Your task to perform on an android device: change the clock display to show seconds Image 0: 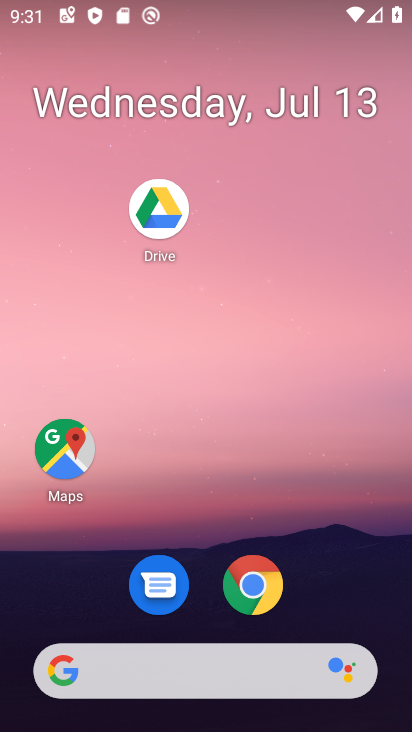
Step 0: drag from (197, 669) to (286, 133)
Your task to perform on an android device: change the clock display to show seconds Image 1: 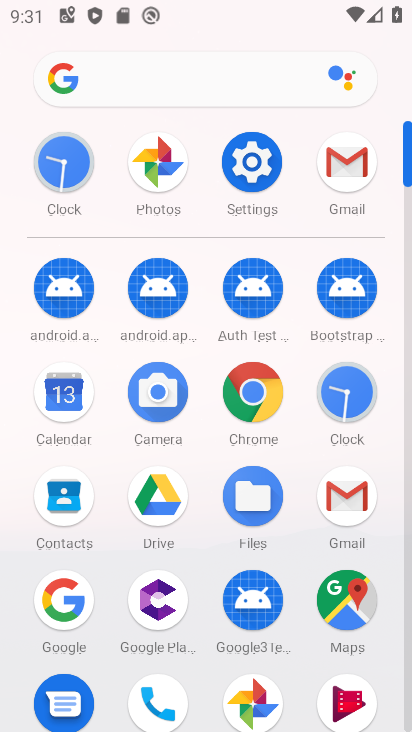
Step 1: click (358, 391)
Your task to perform on an android device: change the clock display to show seconds Image 2: 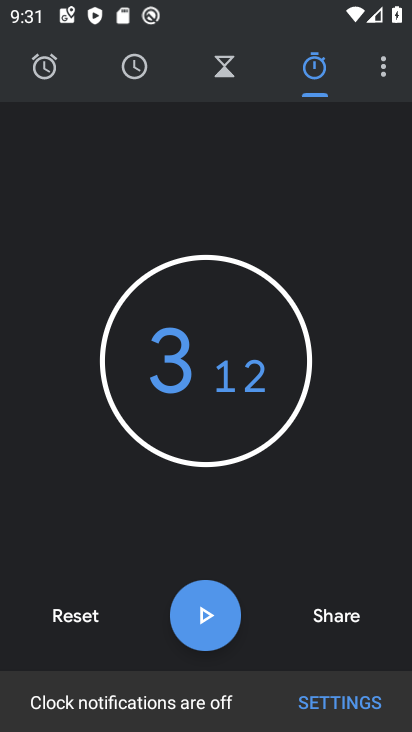
Step 2: click (384, 69)
Your task to perform on an android device: change the clock display to show seconds Image 3: 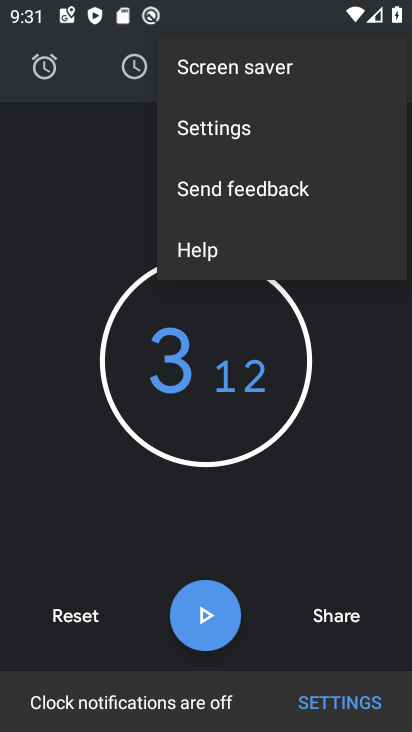
Step 3: click (230, 135)
Your task to perform on an android device: change the clock display to show seconds Image 4: 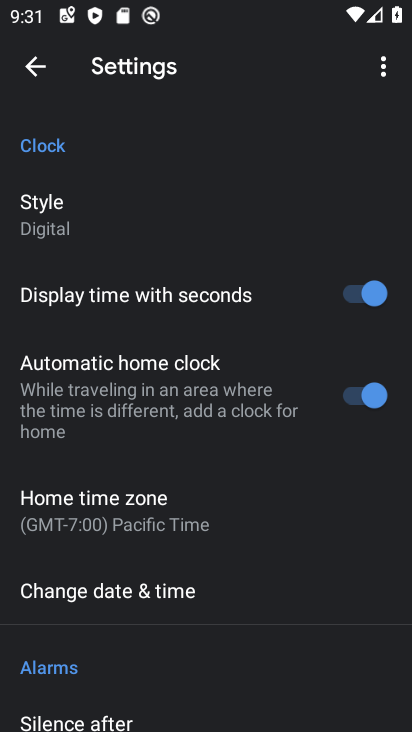
Step 4: task complete